Your task to perform on an android device: show emergency info Image 0: 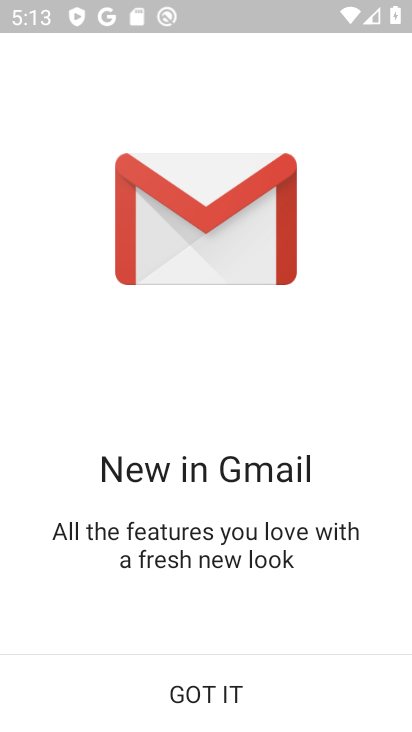
Step 0: press back button
Your task to perform on an android device: show emergency info Image 1: 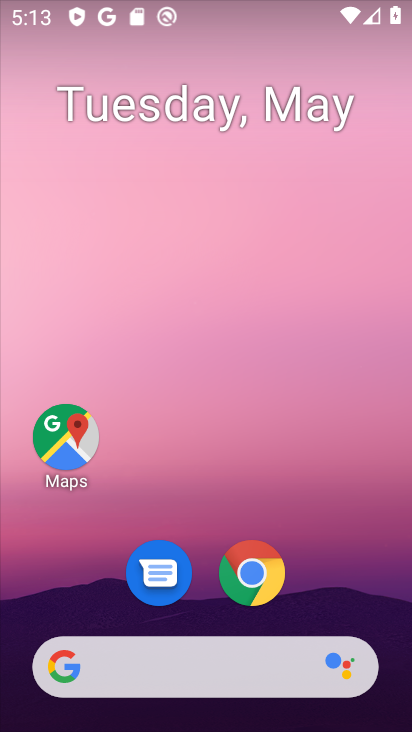
Step 1: drag from (315, 593) to (265, 53)
Your task to perform on an android device: show emergency info Image 2: 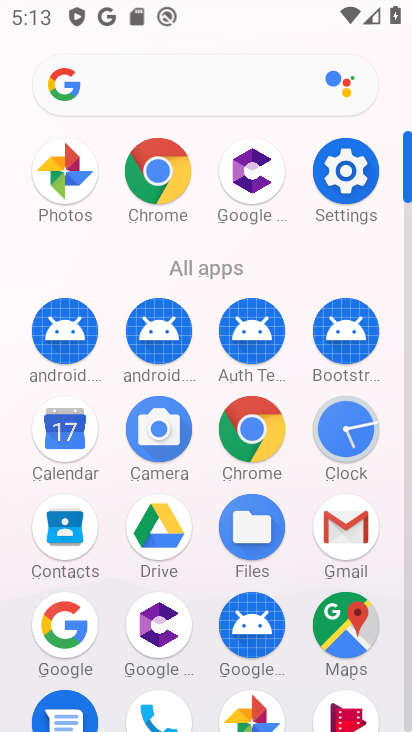
Step 2: click (347, 167)
Your task to perform on an android device: show emergency info Image 3: 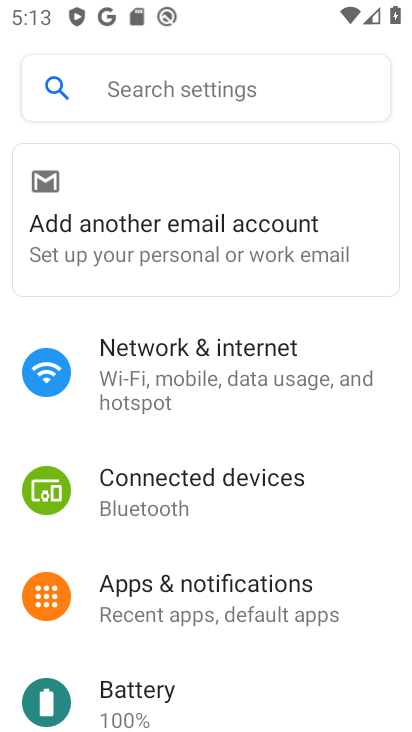
Step 3: drag from (307, 558) to (325, 147)
Your task to perform on an android device: show emergency info Image 4: 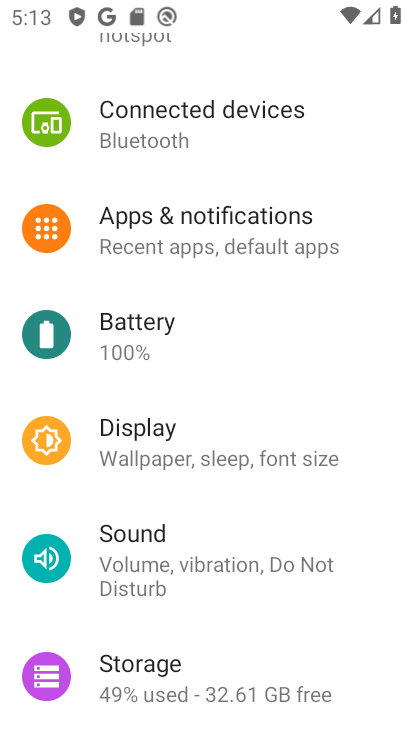
Step 4: drag from (296, 605) to (297, 144)
Your task to perform on an android device: show emergency info Image 5: 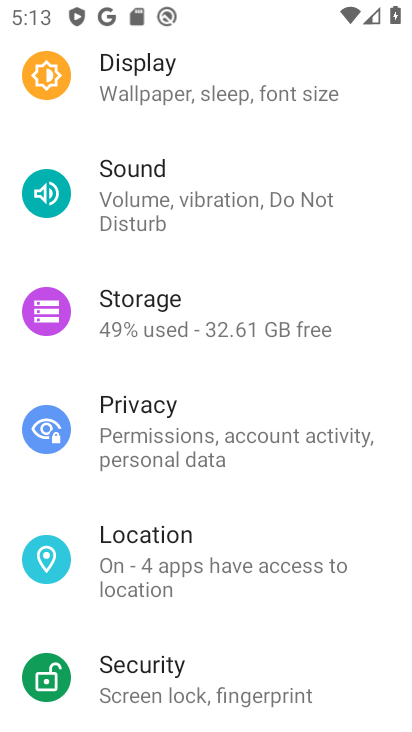
Step 5: drag from (265, 550) to (300, 179)
Your task to perform on an android device: show emergency info Image 6: 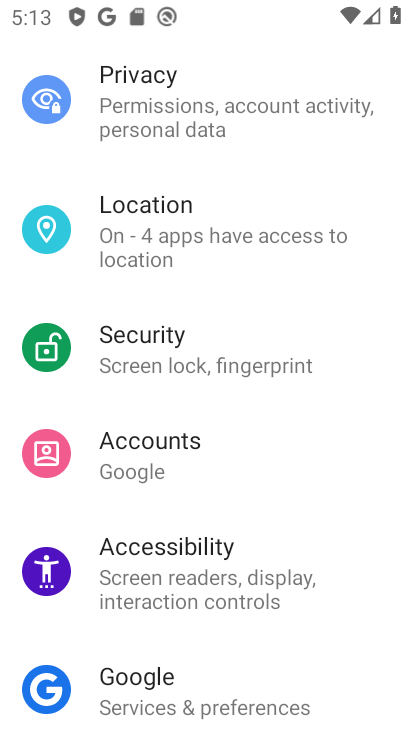
Step 6: drag from (265, 480) to (282, 101)
Your task to perform on an android device: show emergency info Image 7: 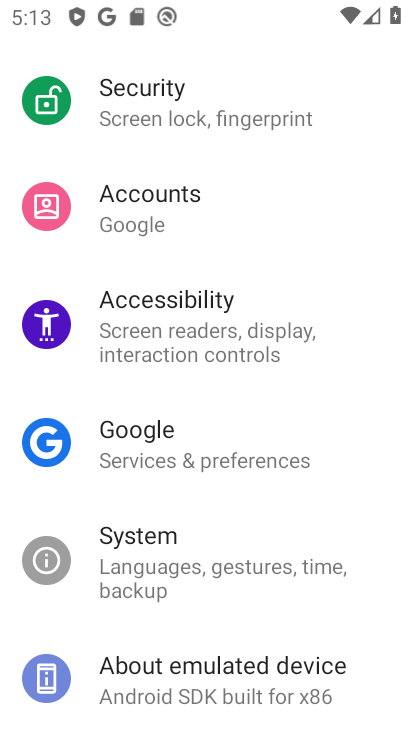
Step 7: drag from (250, 551) to (249, 116)
Your task to perform on an android device: show emergency info Image 8: 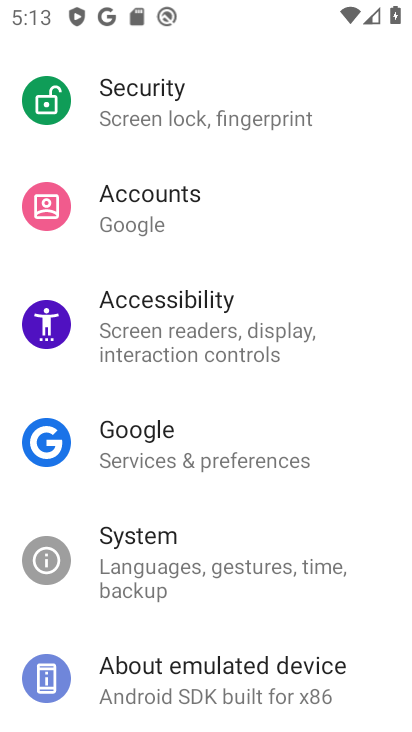
Step 8: drag from (221, 544) to (253, 119)
Your task to perform on an android device: show emergency info Image 9: 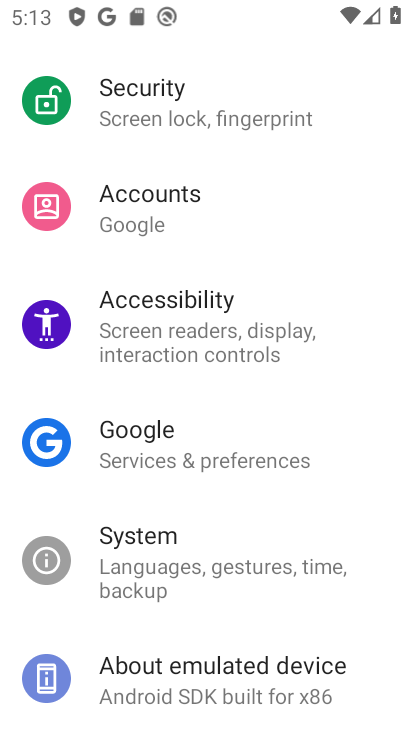
Step 9: drag from (258, 599) to (264, 273)
Your task to perform on an android device: show emergency info Image 10: 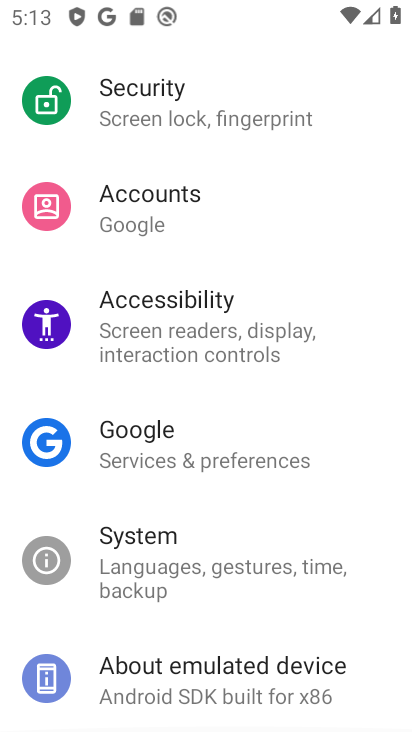
Step 10: click (211, 691)
Your task to perform on an android device: show emergency info Image 11: 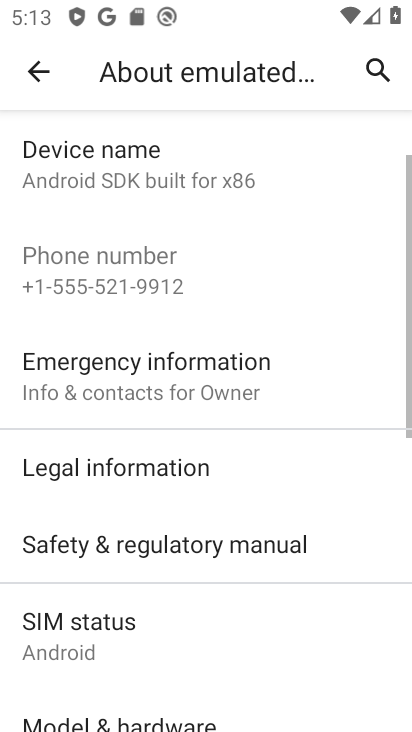
Step 11: task complete